Your task to perform on an android device: set the timer Image 0: 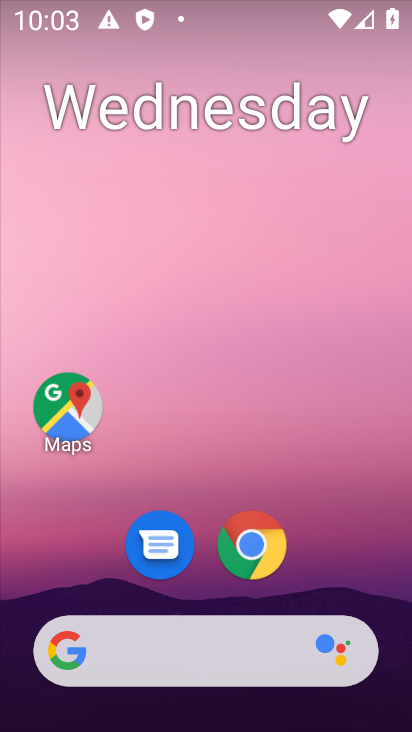
Step 0: drag from (214, 472) to (212, 17)
Your task to perform on an android device: set the timer Image 1: 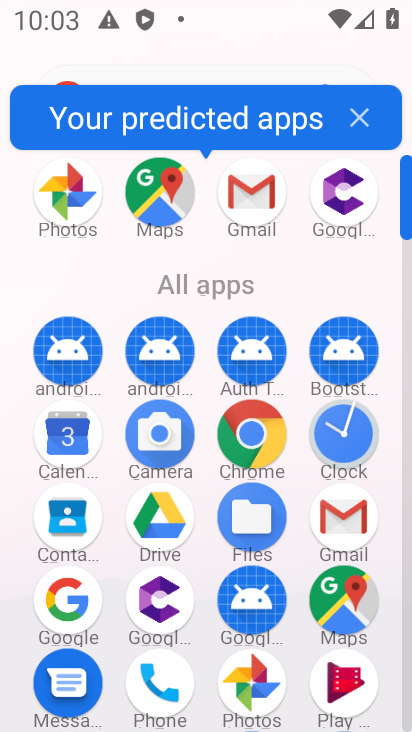
Step 1: click (351, 436)
Your task to perform on an android device: set the timer Image 2: 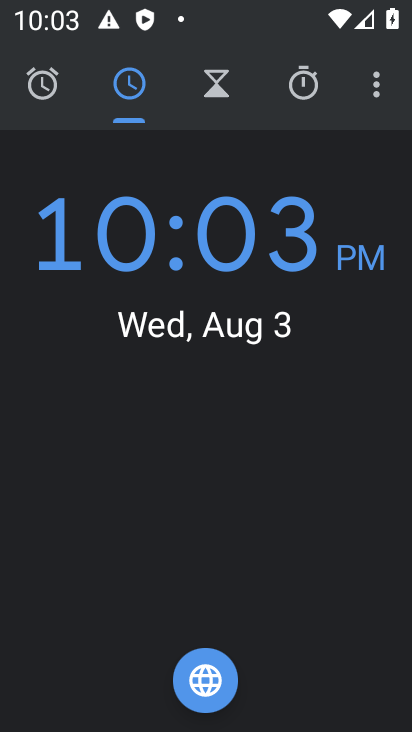
Step 2: click (229, 91)
Your task to perform on an android device: set the timer Image 3: 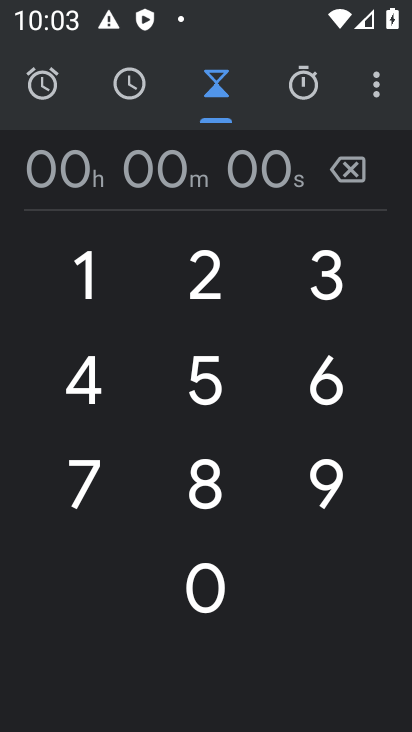
Step 3: click (197, 265)
Your task to perform on an android device: set the timer Image 4: 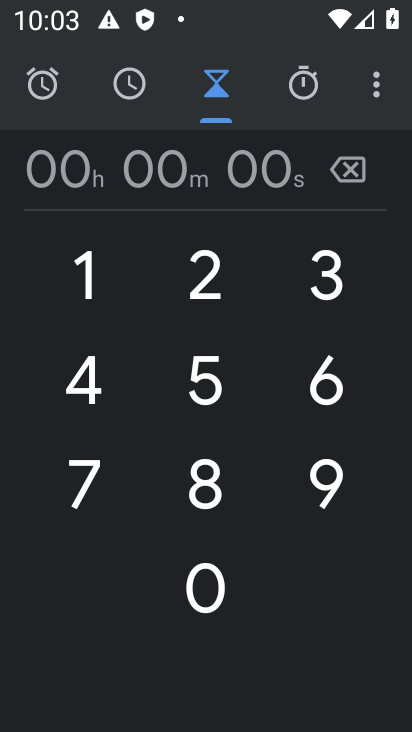
Step 4: click (197, 265)
Your task to perform on an android device: set the timer Image 5: 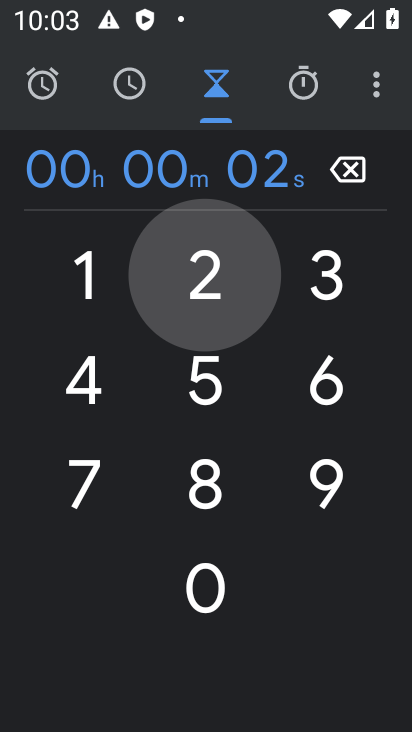
Step 5: click (197, 265)
Your task to perform on an android device: set the timer Image 6: 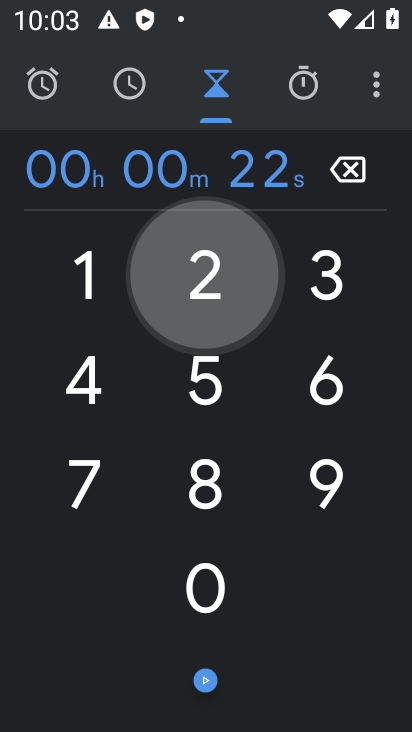
Step 6: click (197, 265)
Your task to perform on an android device: set the timer Image 7: 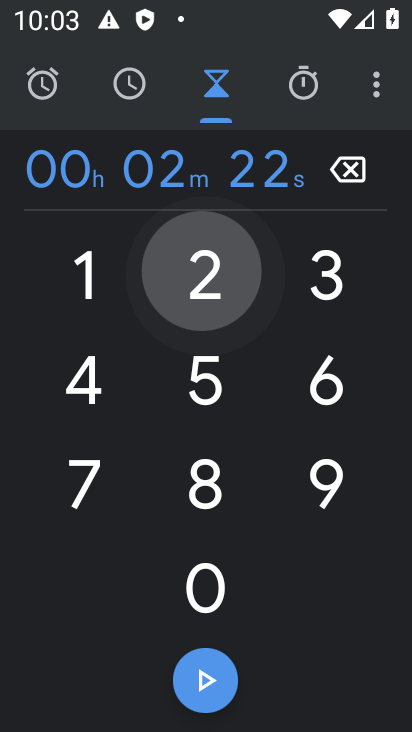
Step 7: click (197, 265)
Your task to perform on an android device: set the timer Image 8: 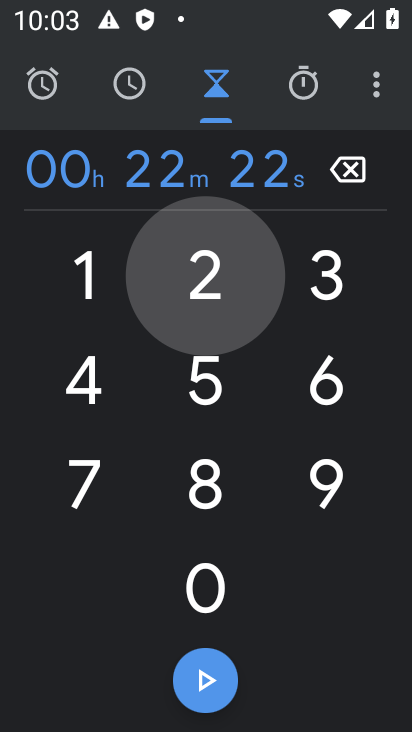
Step 8: click (197, 265)
Your task to perform on an android device: set the timer Image 9: 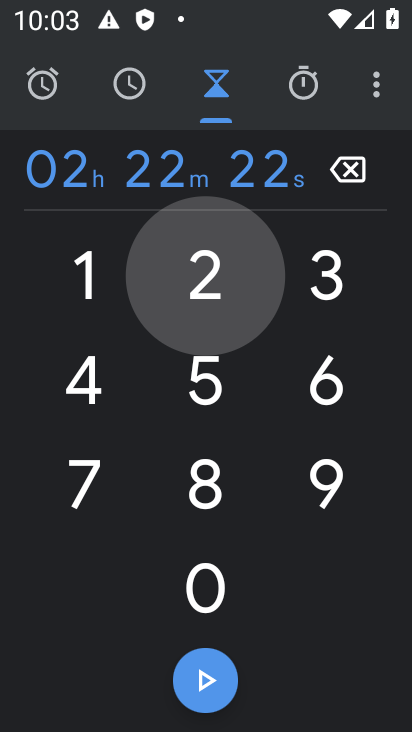
Step 9: click (197, 265)
Your task to perform on an android device: set the timer Image 10: 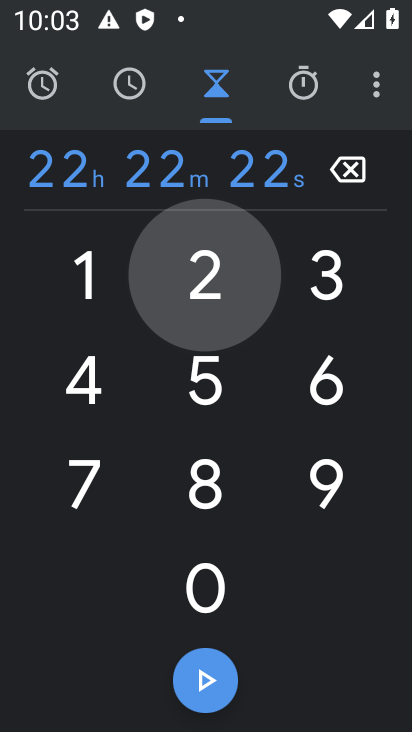
Step 10: click (197, 265)
Your task to perform on an android device: set the timer Image 11: 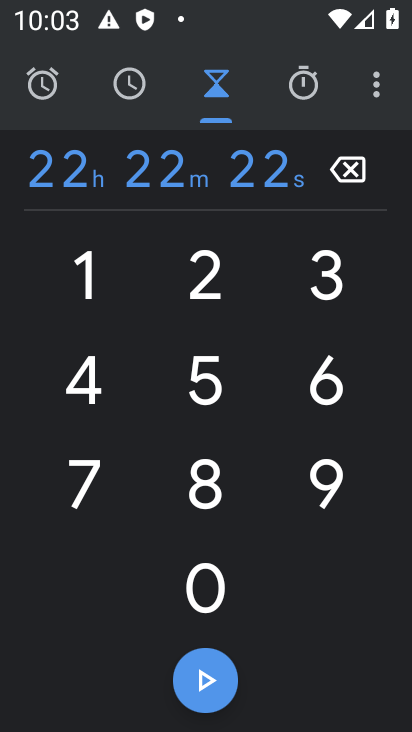
Step 11: click (209, 676)
Your task to perform on an android device: set the timer Image 12: 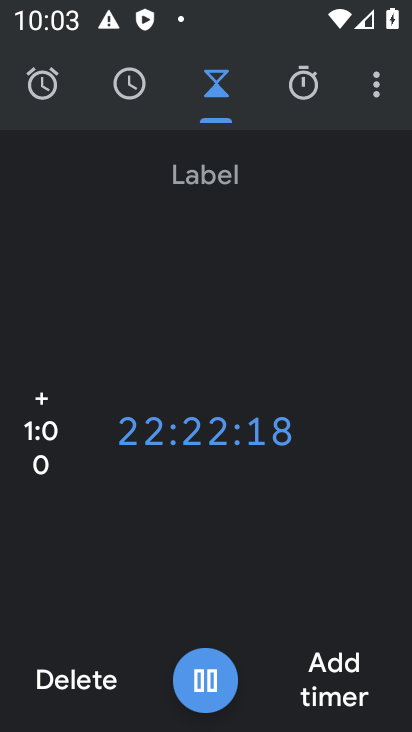
Step 12: task complete